Your task to perform on an android device: check out phone information Image 0: 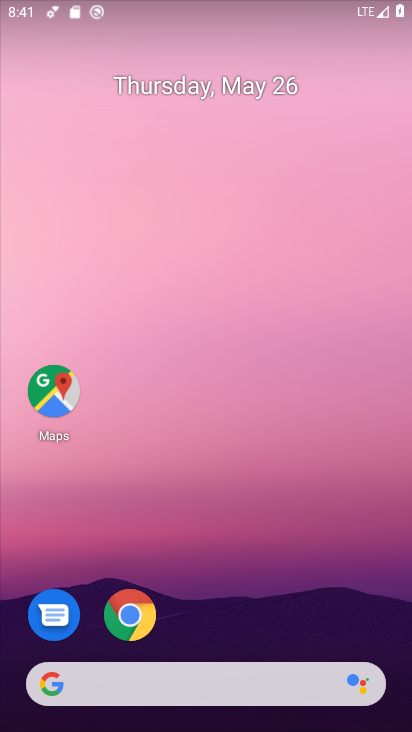
Step 0: drag from (247, 640) to (240, 272)
Your task to perform on an android device: check out phone information Image 1: 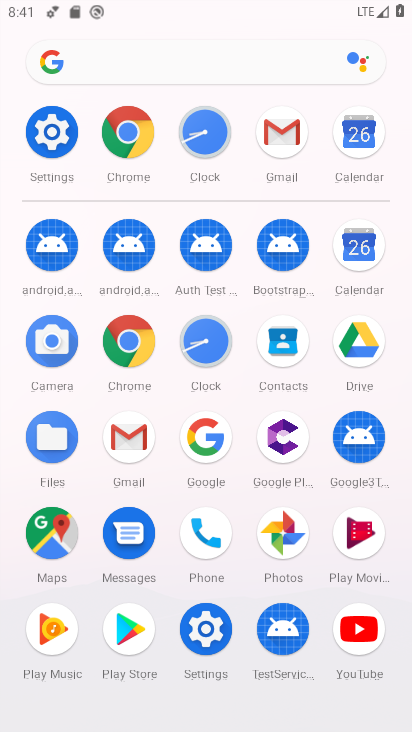
Step 1: click (127, 101)
Your task to perform on an android device: check out phone information Image 2: 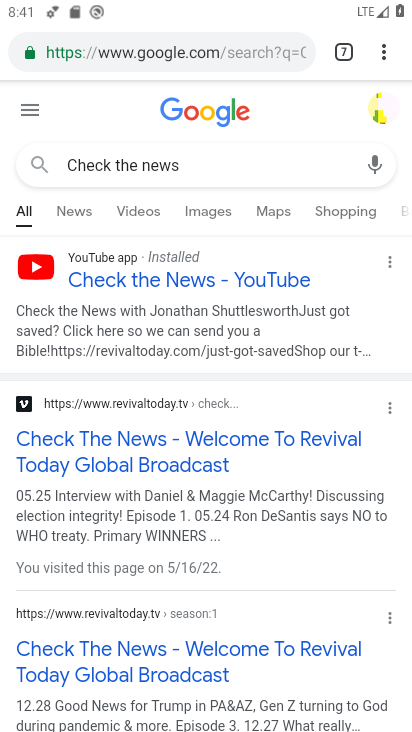
Step 2: click (388, 48)
Your task to perform on an android device: check out phone information Image 3: 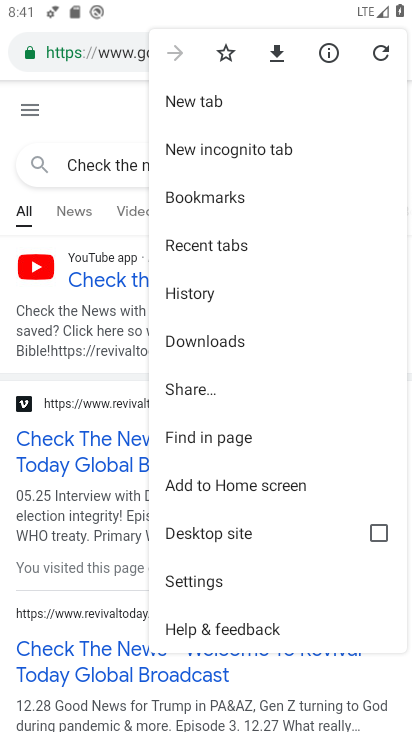
Step 3: press home button
Your task to perform on an android device: check out phone information Image 4: 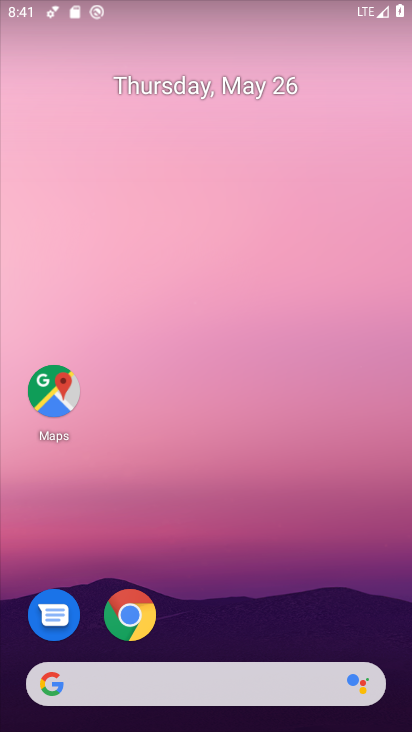
Step 4: drag from (197, 604) to (203, 205)
Your task to perform on an android device: check out phone information Image 5: 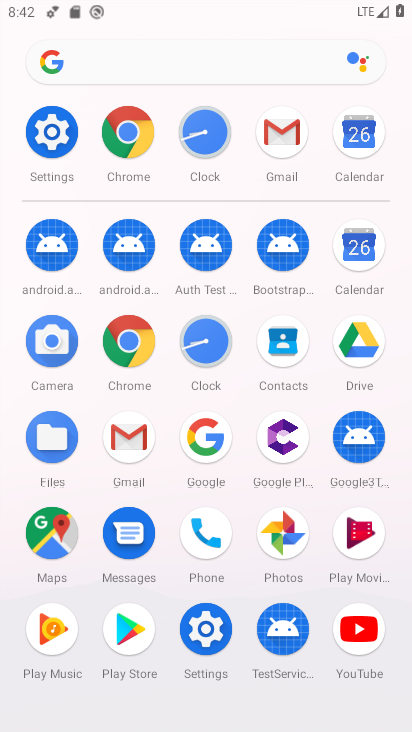
Step 5: click (50, 131)
Your task to perform on an android device: check out phone information Image 6: 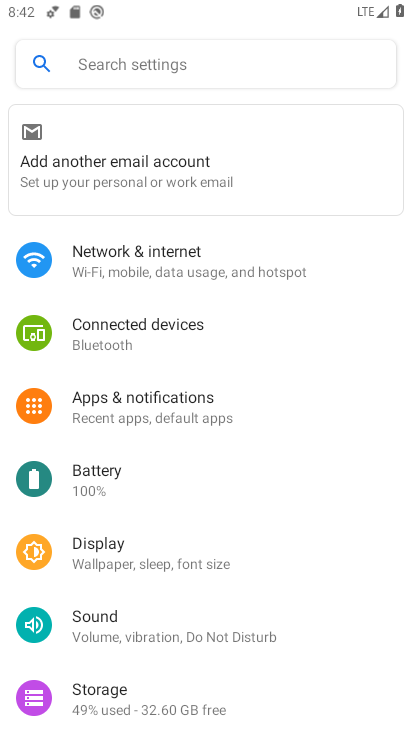
Step 6: drag from (193, 654) to (214, 79)
Your task to perform on an android device: check out phone information Image 7: 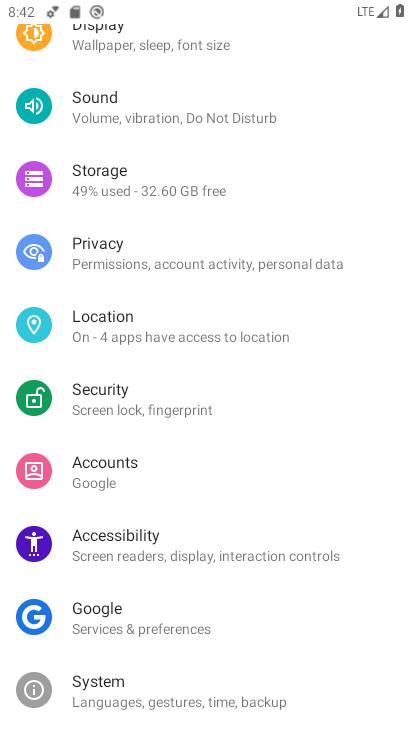
Step 7: drag from (209, 615) to (240, 94)
Your task to perform on an android device: check out phone information Image 8: 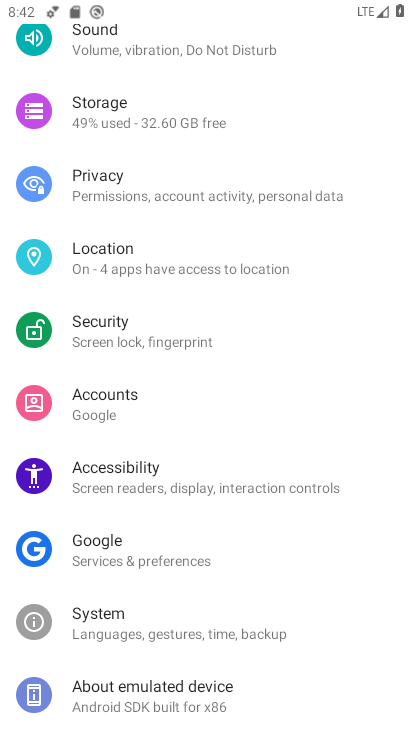
Step 8: click (188, 693)
Your task to perform on an android device: check out phone information Image 9: 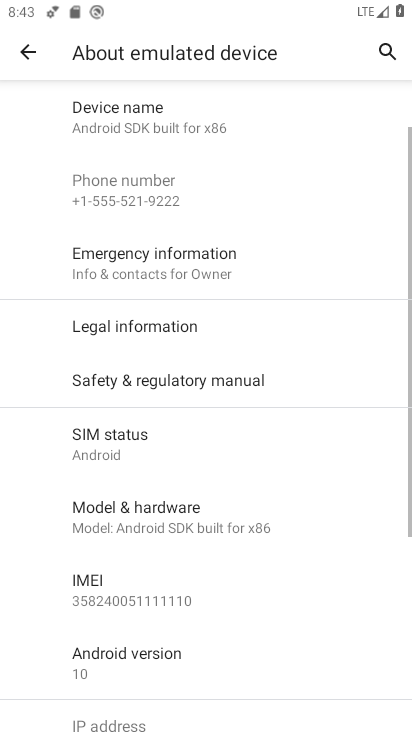
Step 9: task complete